Your task to perform on an android device: Is it going to rain today? Image 0: 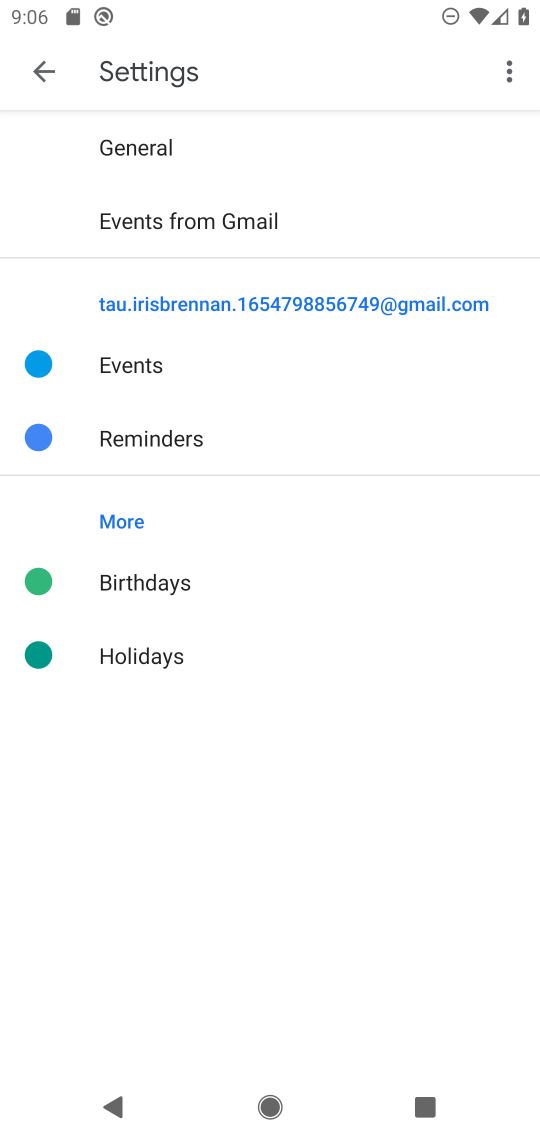
Step 0: press home button
Your task to perform on an android device: Is it going to rain today? Image 1: 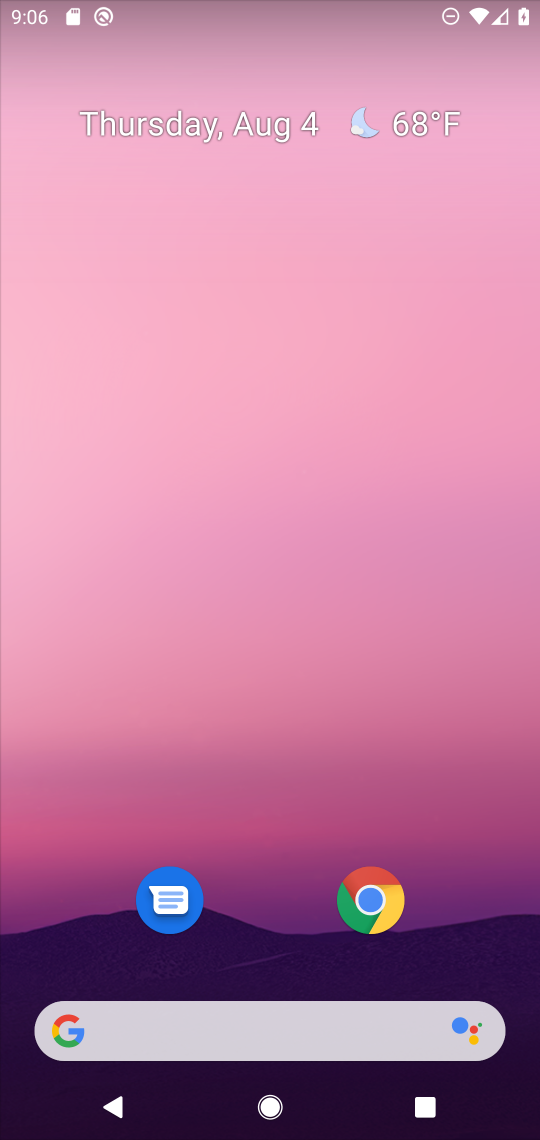
Step 1: click (167, 1025)
Your task to perform on an android device: Is it going to rain today? Image 2: 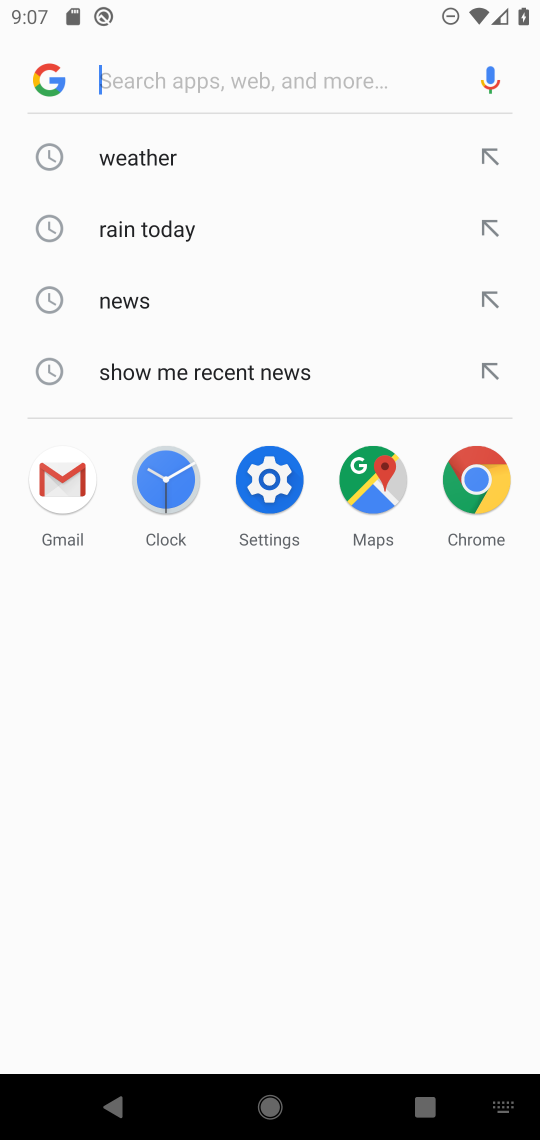
Step 2: click (144, 149)
Your task to perform on an android device: Is it going to rain today? Image 3: 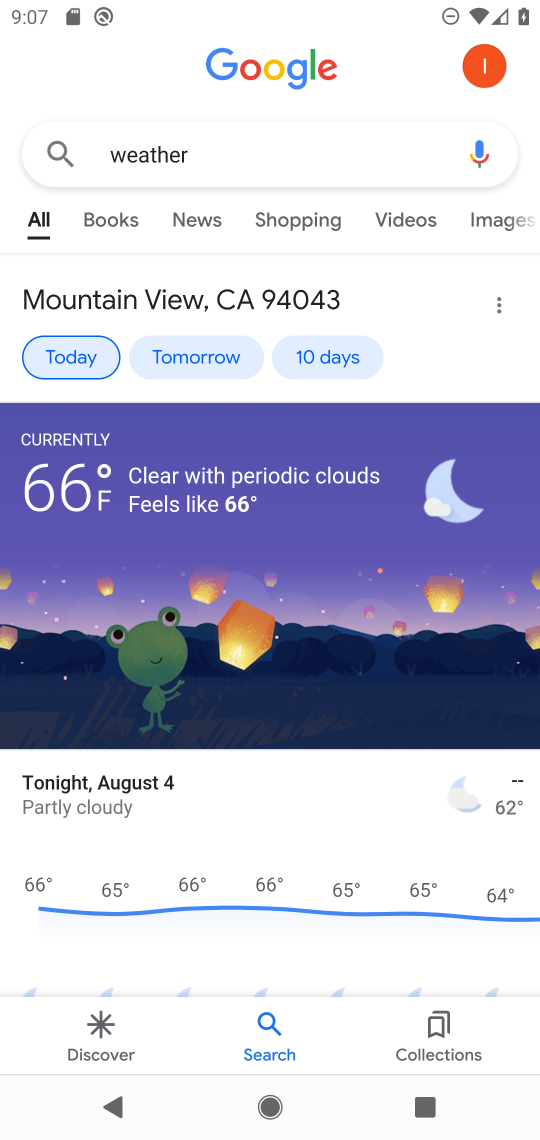
Step 3: task complete